Your task to perform on an android device: turn on priority inbox in the gmail app Image 0: 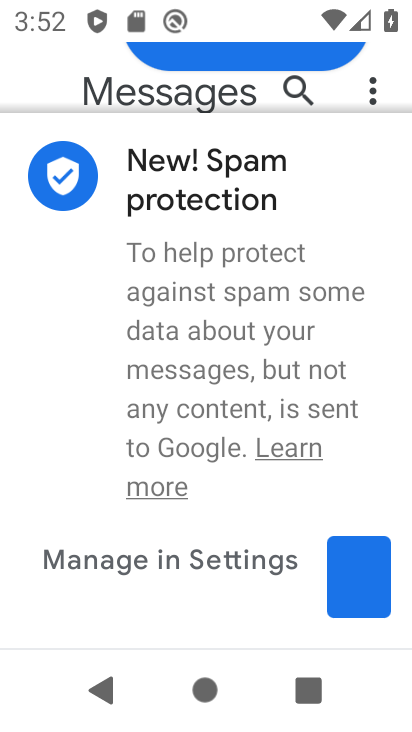
Step 0: press back button
Your task to perform on an android device: turn on priority inbox in the gmail app Image 1: 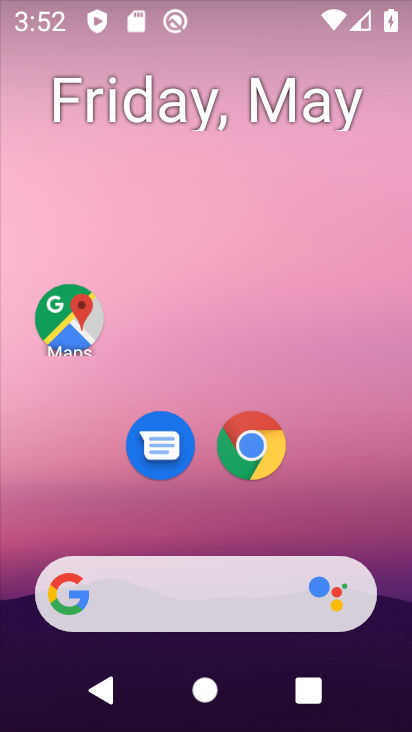
Step 1: drag from (182, 542) to (152, 88)
Your task to perform on an android device: turn on priority inbox in the gmail app Image 2: 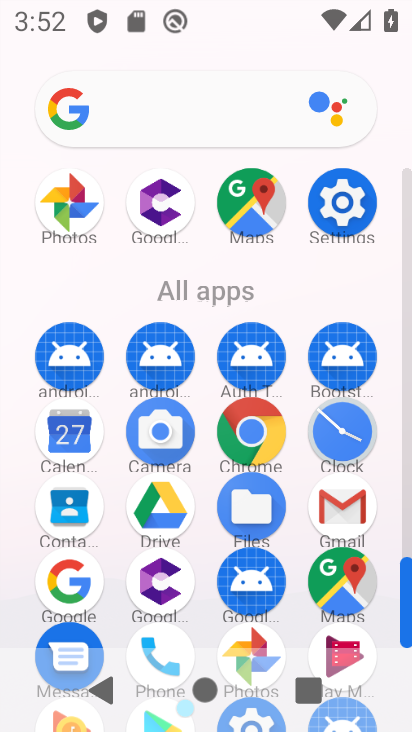
Step 2: click (343, 510)
Your task to perform on an android device: turn on priority inbox in the gmail app Image 3: 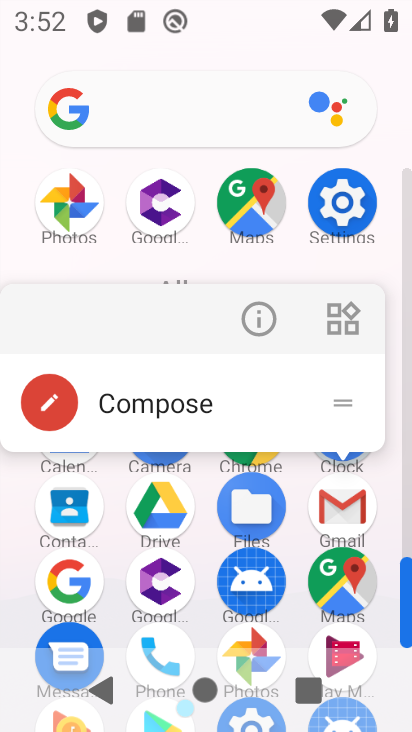
Step 3: click (333, 508)
Your task to perform on an android device: turn on priority inbox in the gmail app Image 4: 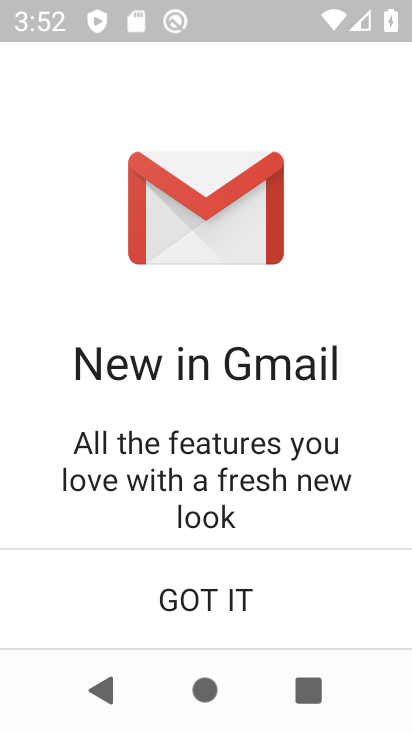
Step 4: click (167, 573)
Your task to perform on an android device: turn on priority inbox in the gmail app Image 5: 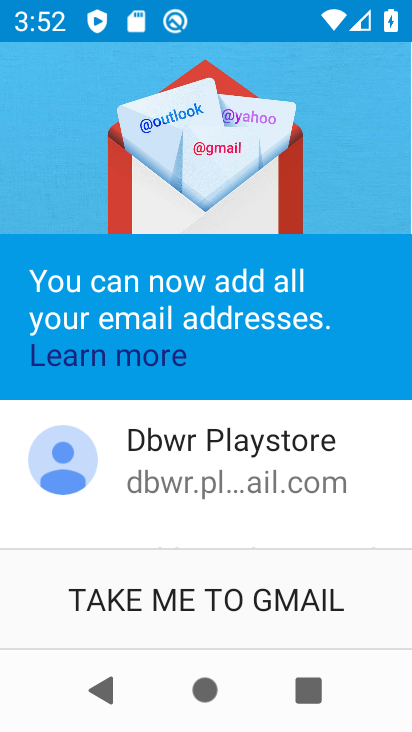
Step 5: click (237, 616)
Your task to perform on an android device: turn on priority inbox in the gmail app Image 6: 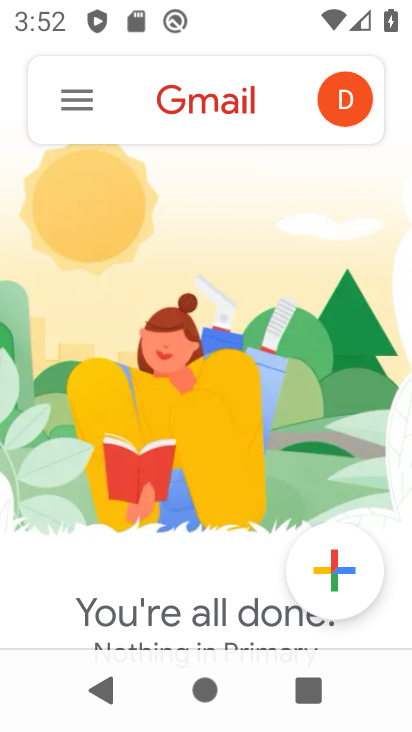
Step 6: click (70, 94)
Your task to perform on an android device: turn on priority inbox in the gmail app Image 7: 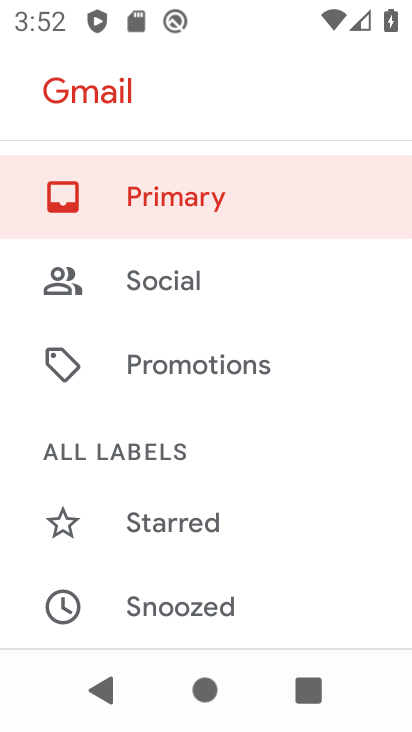
Step 7: drag from (218, 553) to (268, 136)
Your task to perform on an android device: turn on priority inbox in the gmail app Image 8: 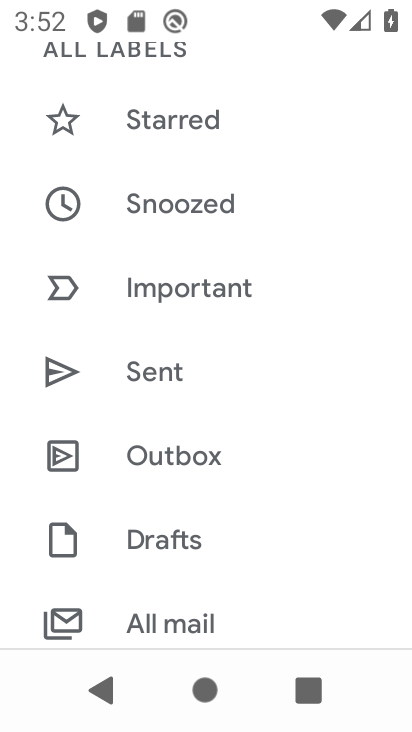
Step 8: drag from (167, 564) to (241, 23)
Your task to perform on an android device: turn on priority inbox in the gmail app Image 9: 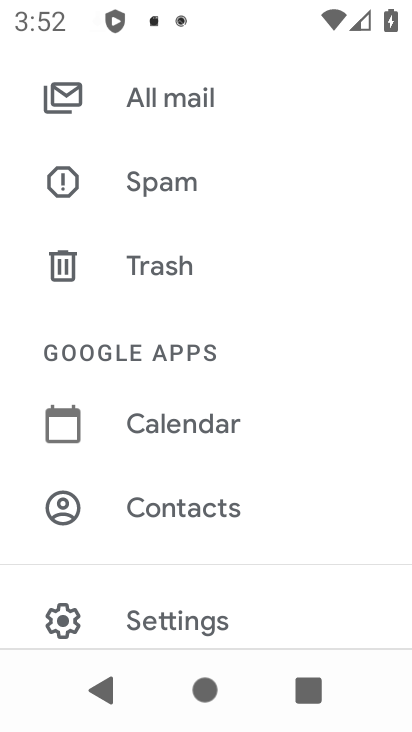
Step 9: click (187, 611)
Your task to perform on an android device: turn on priority inbox in the gmail app Image 10: 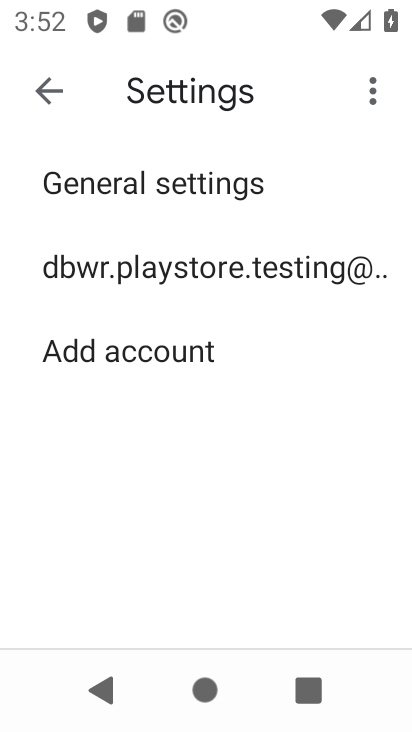
Step 10: click (142, 264)
Your task to perform on an android device: turn on priority inbox in the gmail app Image 11: 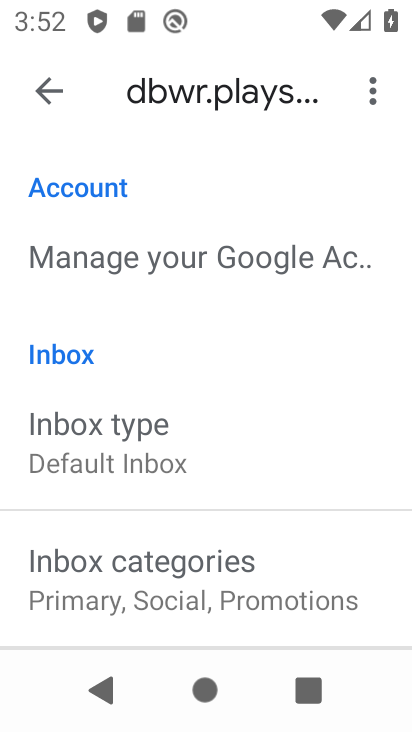
Step 11: click (143, 428)
Your task to perform on an android device: turn on priority inbox in the gmail app Image 12: 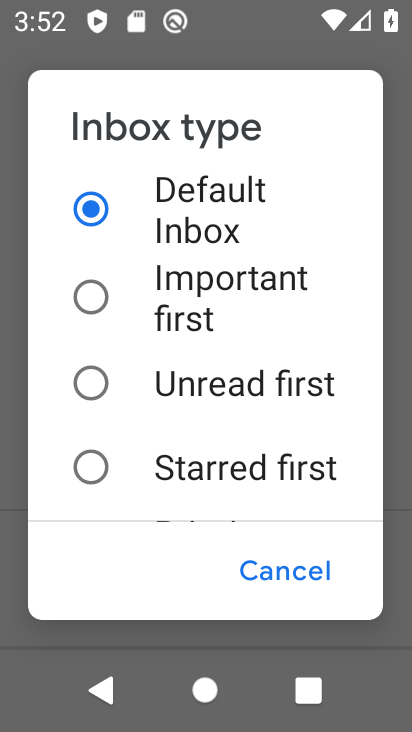
Step 12: drag from (181, 481) to (248, 74)
Your task to perform on an android device: turn on priority inbox in the gmail app Image 13: 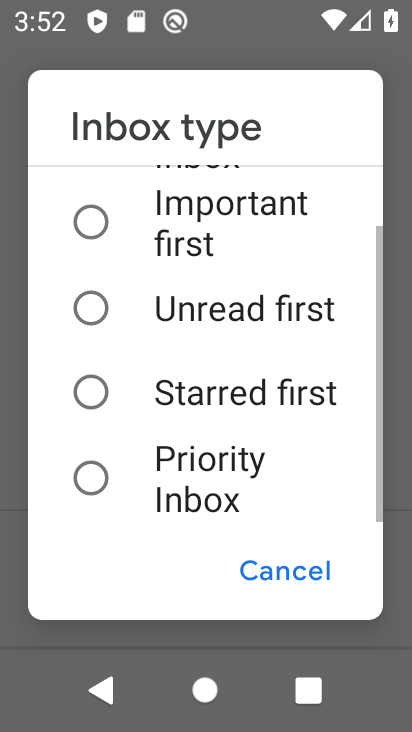
Step 13: click (81, 480)
Your task to perform on an android device: turn on priority inbox in the gmail app Image 14: 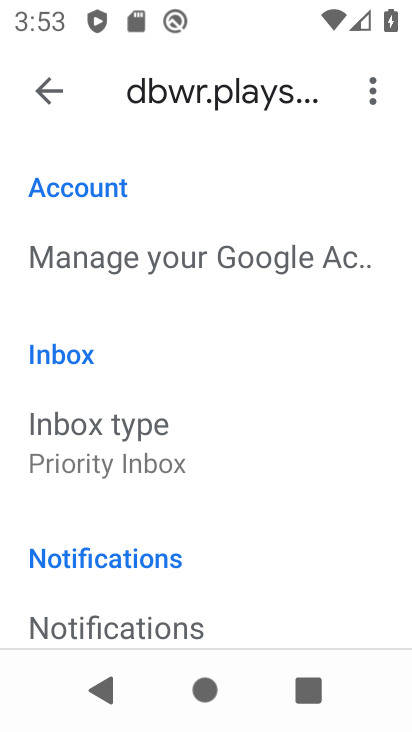
Step 14: task complete